Your task to perform on an android device: change the upload size in google photos Image 0: 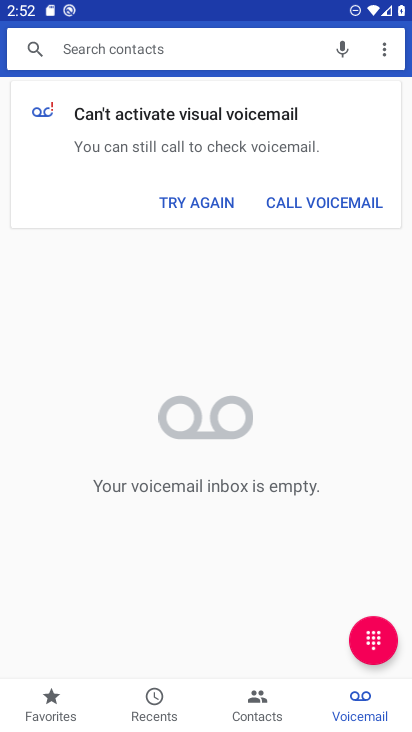
Step 0: press home button
Your task to perform on an android device: change the upload size in google photos Image 1: 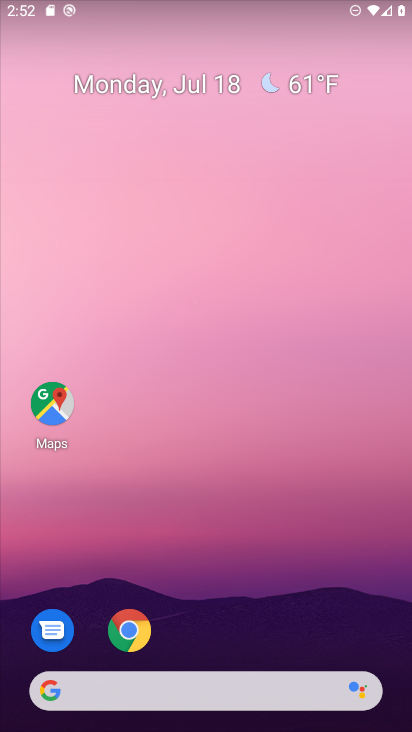
Step 1: drag from (220, 586) to (213, 59)
Your task to perform on an android device: change the upload size in google photos Image 2: 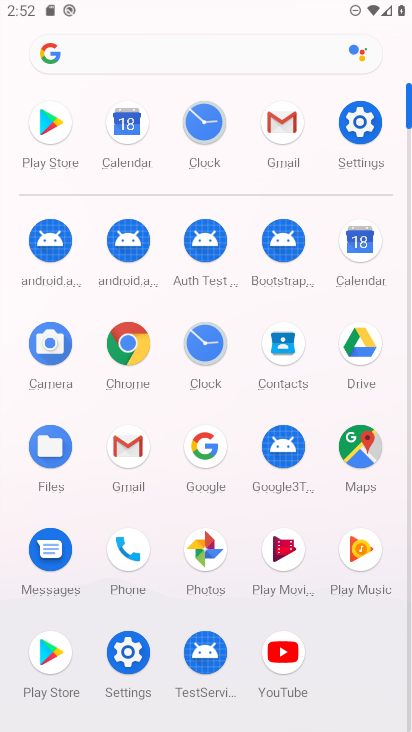
Step 2: click (201, 549)
Your task to perform on an android device: change the upload size in google photos Image 3: 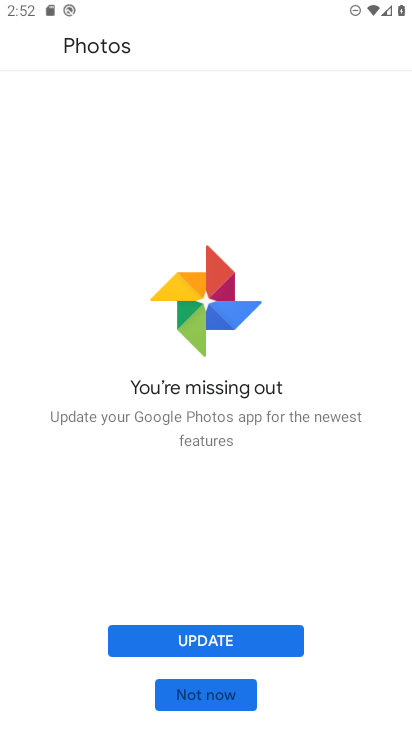
Step 3: click (217, 694)
Your task to perform on an android device: change the upload size in google photos Image 4: 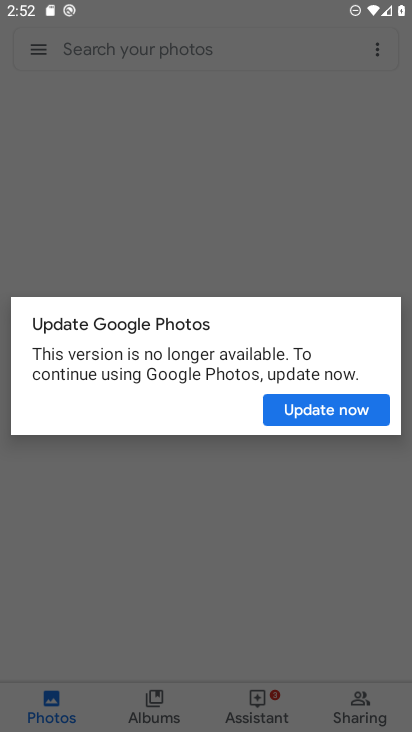
Step 4: click (359, 409)
Your task to perform on an android device: change the upload size in google photos Image 5: 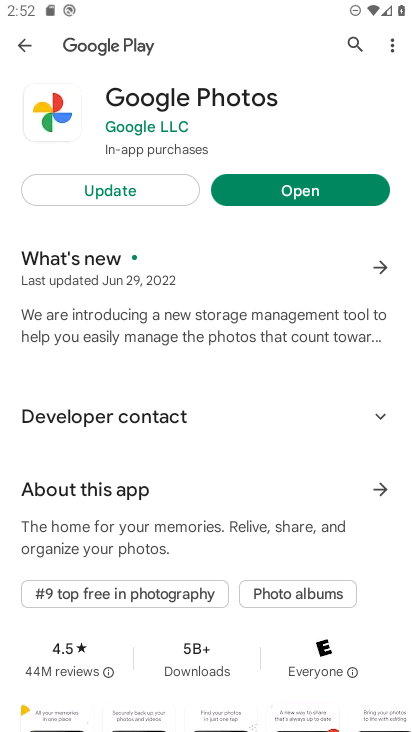
Step 5: click (326, 194)
Your task to perform on an android device: change the upload size in google photos Image 6: 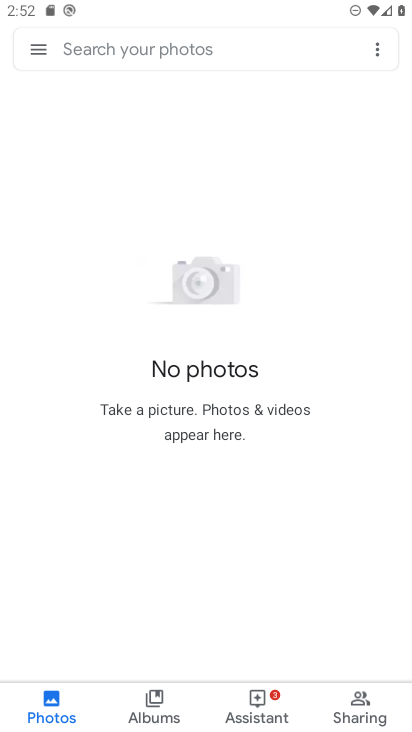
Step 6: click (37, 50)
Your task to perform on an android device: change the upload size in google photos Image 7: 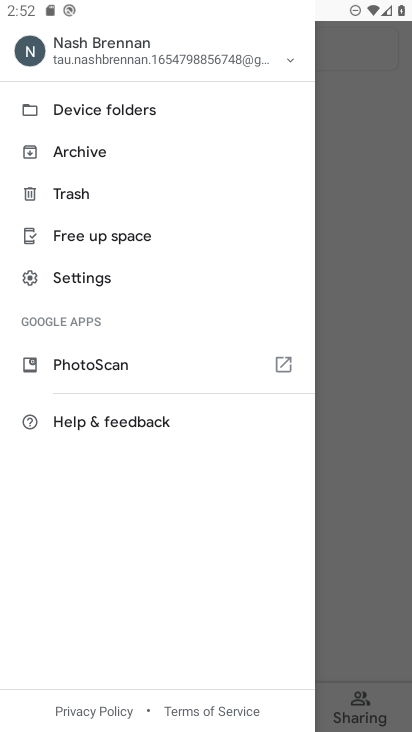
Step 7: click (77, 274)
Your task to perform on an android device: change the upload size in google photos Image 8: 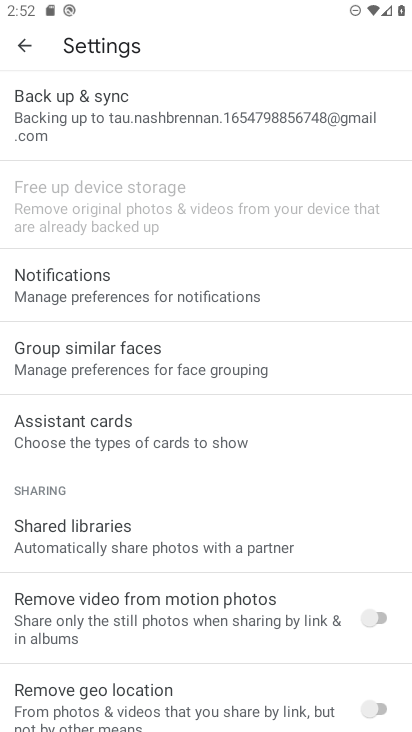
Step 8: click (237, 110)
Your task to perform on an android device: change the upload size in google photos Image 9: 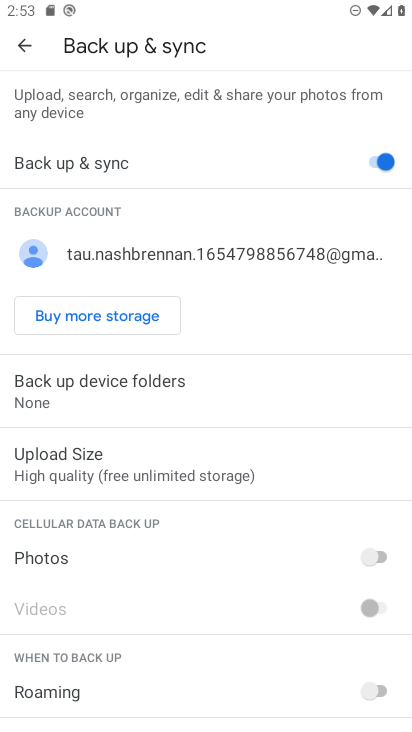
Step 9: click (141, 472)
Your task to perform on an android device: change the upload size in google photos Image 10: 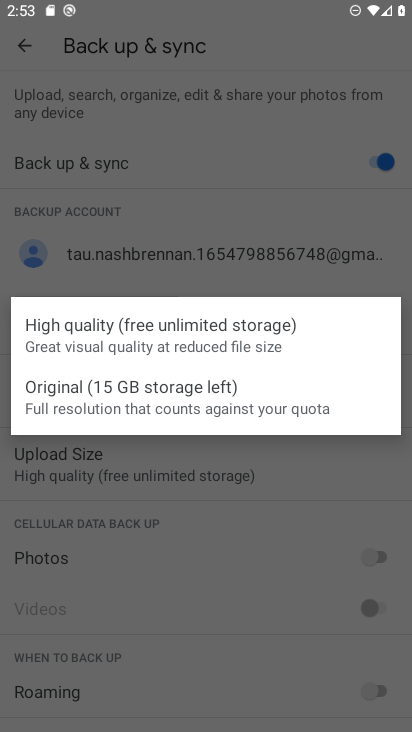
Step 10: click (156, 389)
Your task to perform on an android device: change the upload size in google photos Image 11: 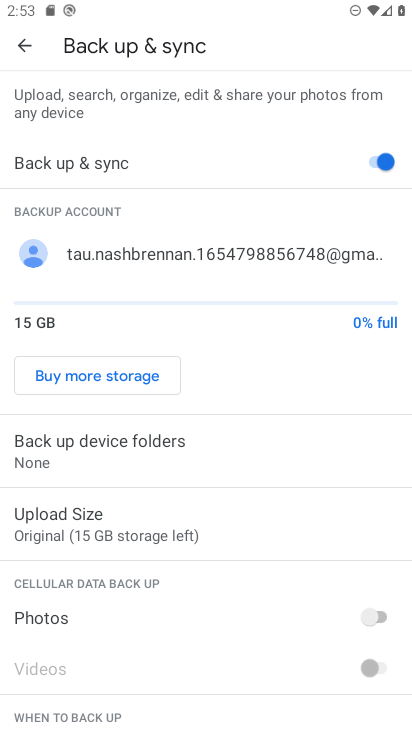
Step 11: task complete